Your task to perform on an android device: What is the recent news? Image 0: 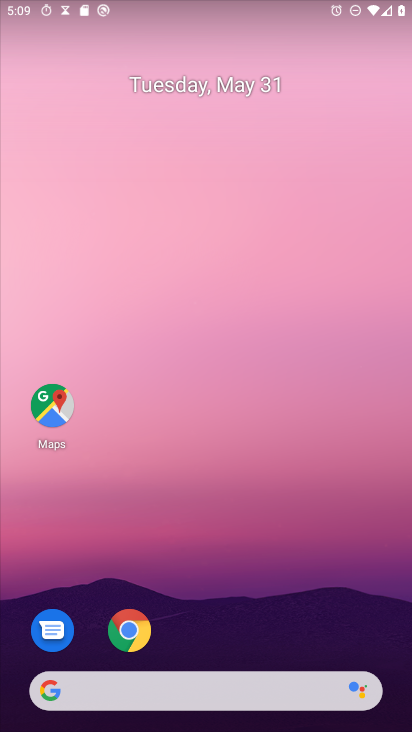
Step 0: drag from (261, 665) to (217, 0)
Your task to perform on an android device: What is the recent news? Image 1: 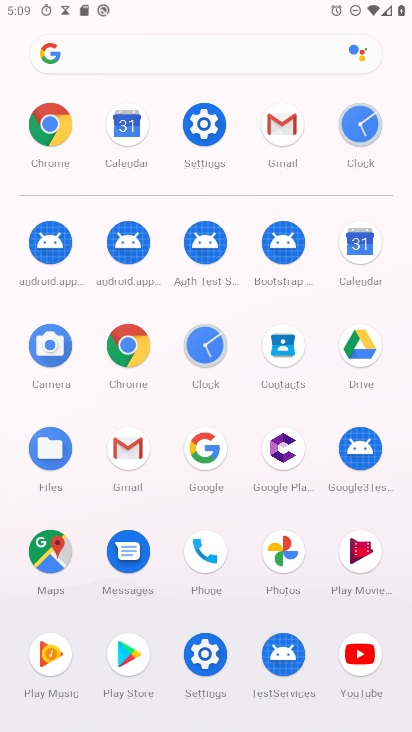
Step 1: click (131, 355)
Your task to perform on an android device: What is the recent news? Image 2: 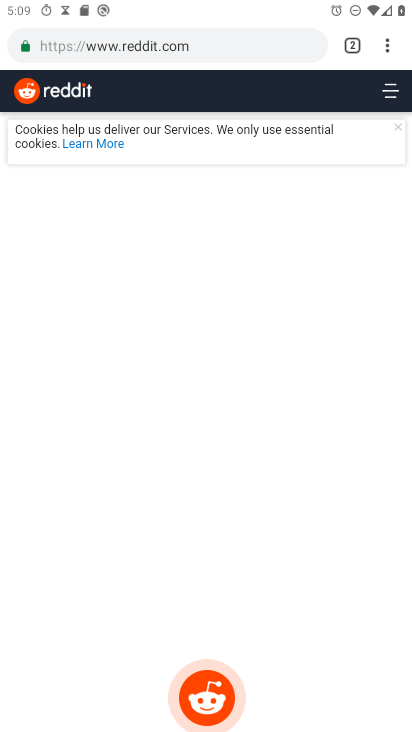
Step 2: click (205, 46)
Your task to perform on an android device: What is the recent news? Image 3: 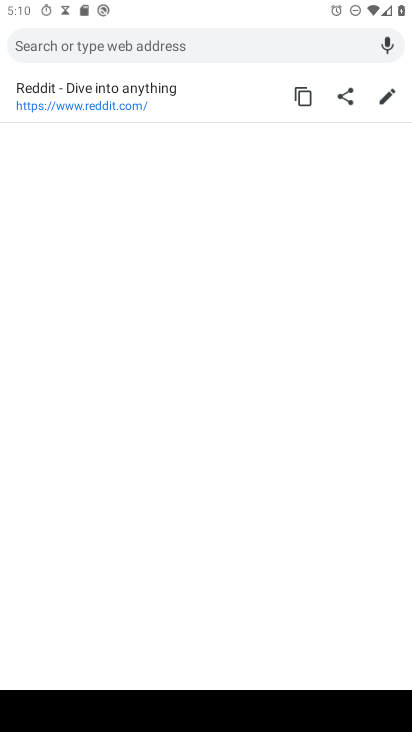
Step 3: type "recent news"
Your task to perform on an android device: What is the recent news? Image 4: 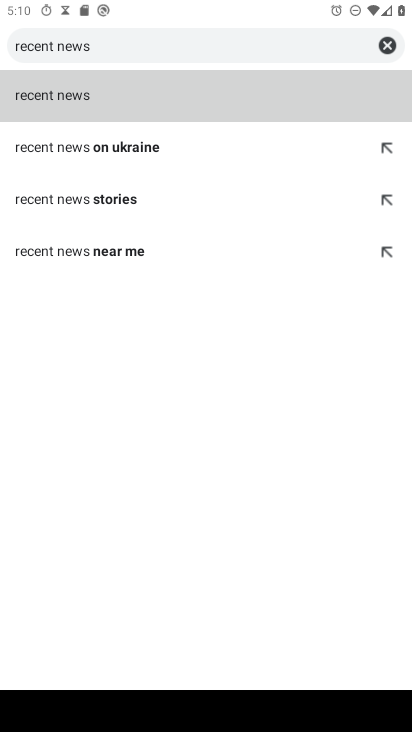
Step 4: click (109, 105)
Your task to perform on an android device: What is the recent news? Image 5: 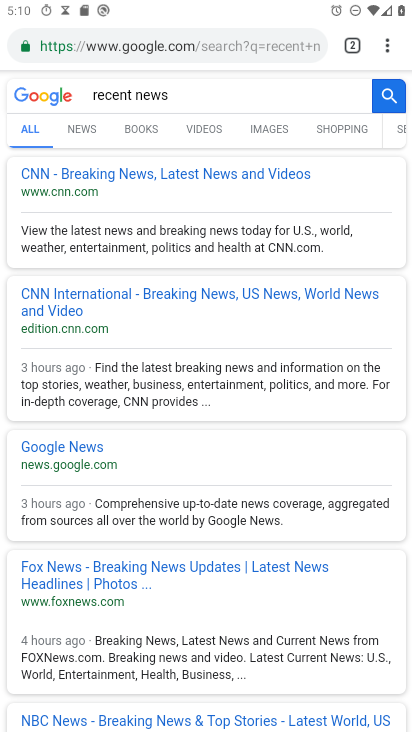
Step 5: task complete